Your task to perform on an android device: toggle sleep mode Image 0: 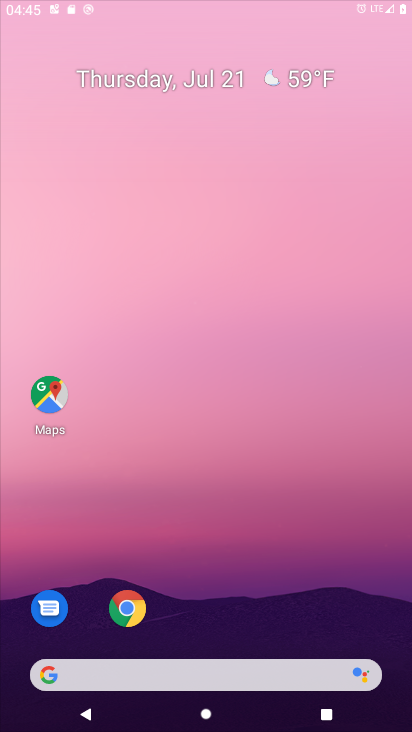
Step 0: drag from (296, 680) to (368, 21)
Your task to perform on an android device: toggle sleep mode Image 1: 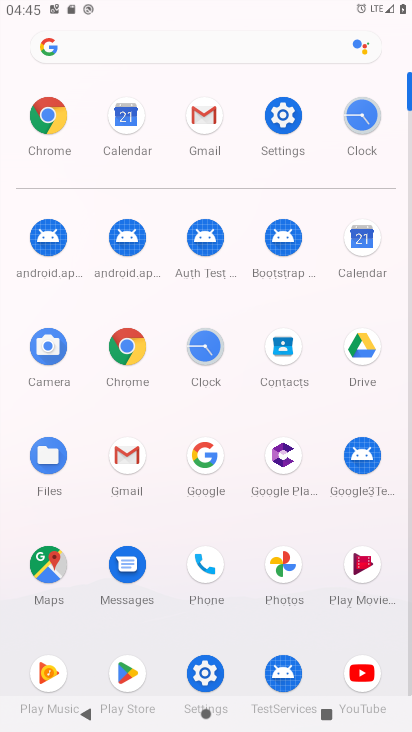
Step 1: click (278, 95)
Your task to perform on an android device: toggle sleep mode Image 2: 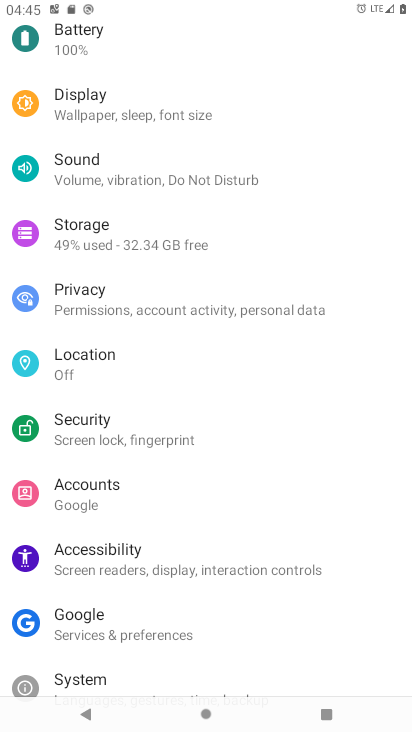
Step 2: click (149, 112)
Your task to perform on an android device: toggle sleep mode Image 3: 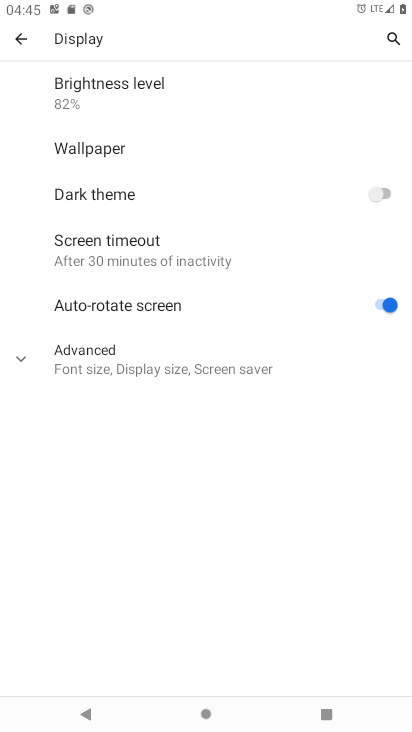
Step 3: task complete